Your task to perform on an android device: Go to accessibility settings Image 0: 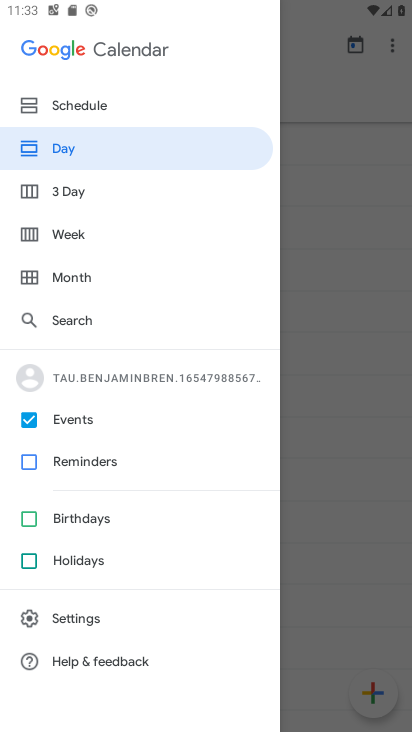
Step 0: press home button
Your task to perform on an android device: Go to accessibility settings Image 1: 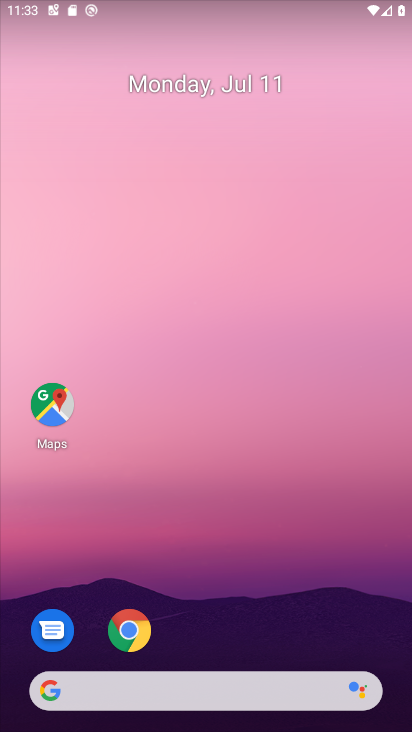
Step 1: drag from (170, 564) to (217, 6)
Your task to perform on an android device: Go to accessibility settings Image 2: 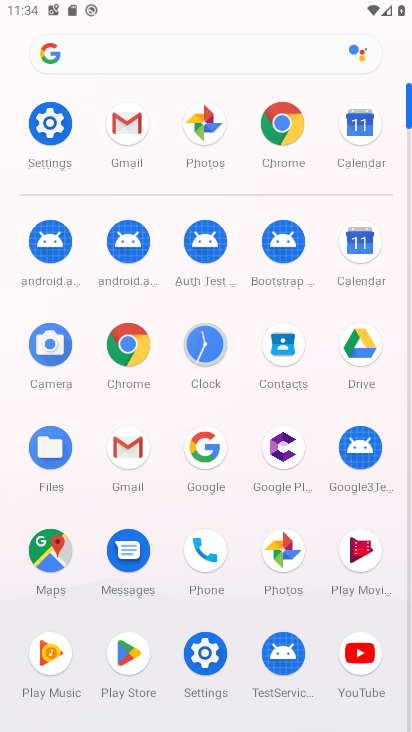
Step 2: click (198, 666)
Your task to perform on an android device: Go to accessibility settings Image 3: 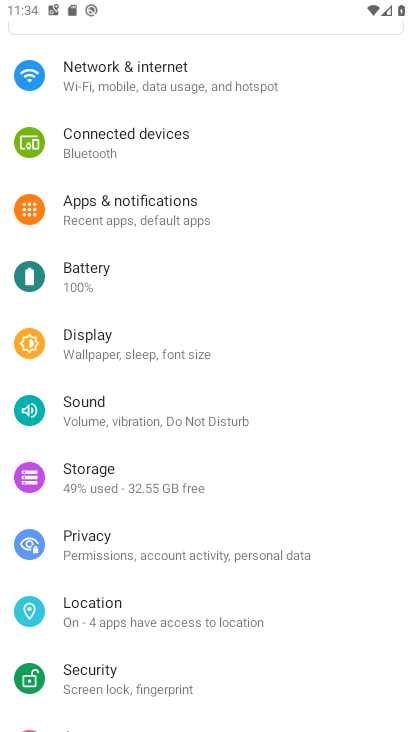
Step 3: drag from (132, 619) to (165, 354)
Your task to perform on an android device: Go to accessibility settings Image 4: 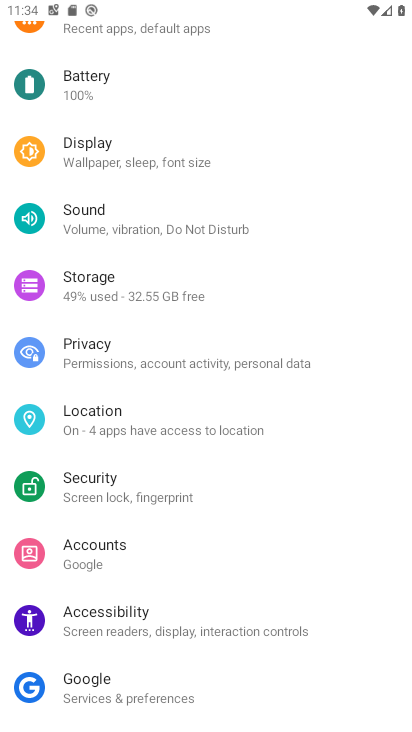
Step 4: click (152, 627)
Your task to perform on an android device: Go to accessibility settings Image 5: 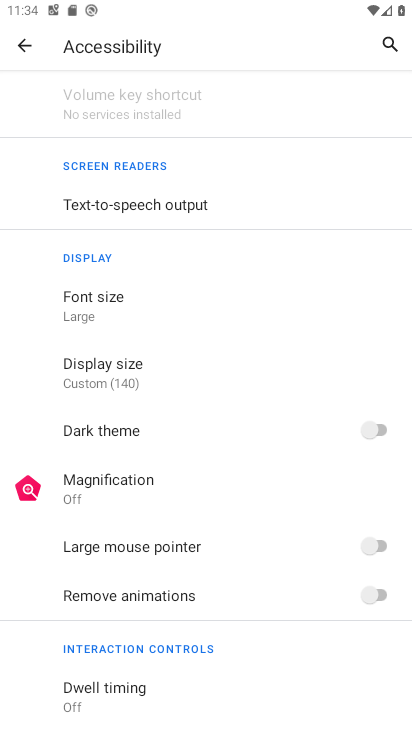
Step 5: task complete